Your task to perform on an android device: Open ESPN.com Image 0: 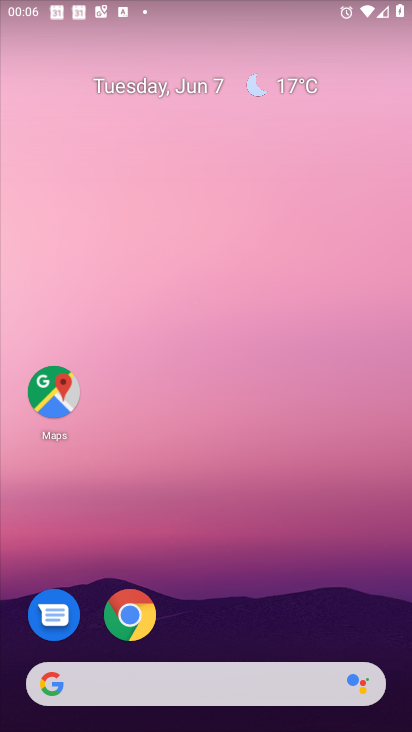
Step 0: click (140, 618)
Your task to perform on an android device: Open ESPN.com Image 1: 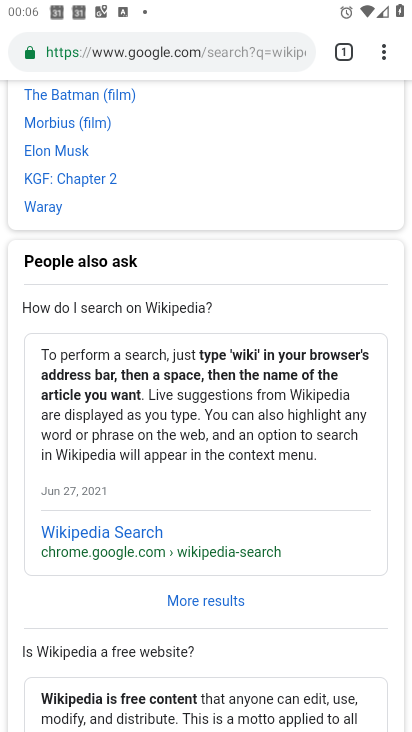
Step 1: click (301, 49)
Your task to perform on an android device: Open ESPN.com Image 2: 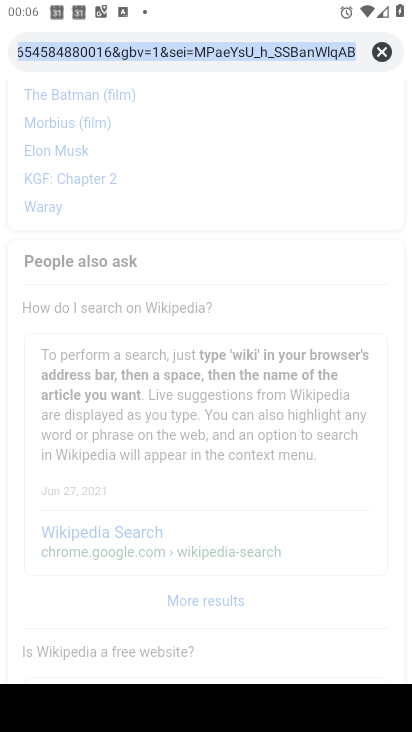
Step 2: click (379, 46)
Your task to perform on an android device: Open ESPN.com Image 3: 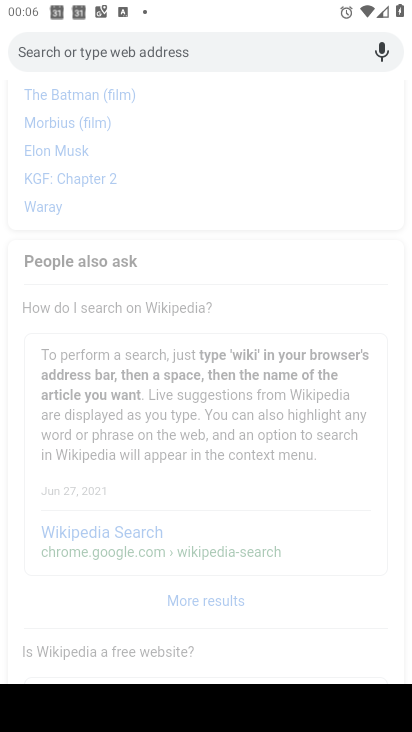
Step 3: type "ESPN.com"
Your task to perform on an android device: Open ESPN.com Image 4: 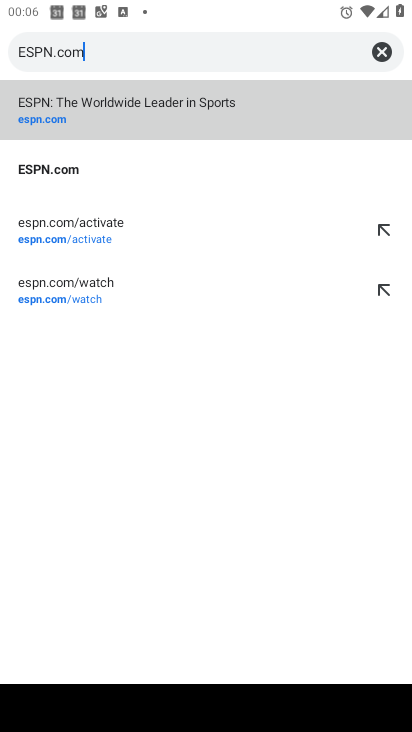
Step 4: click (46, 170)
Your task to perform on an android device: Open ESPN.com Image 5: 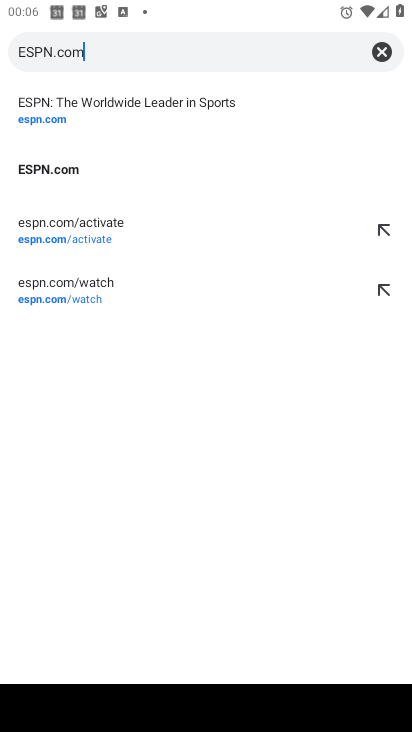
Step 5: click (41, 164)
Your task to perform on an android device: Open ESPN.com Image 6: 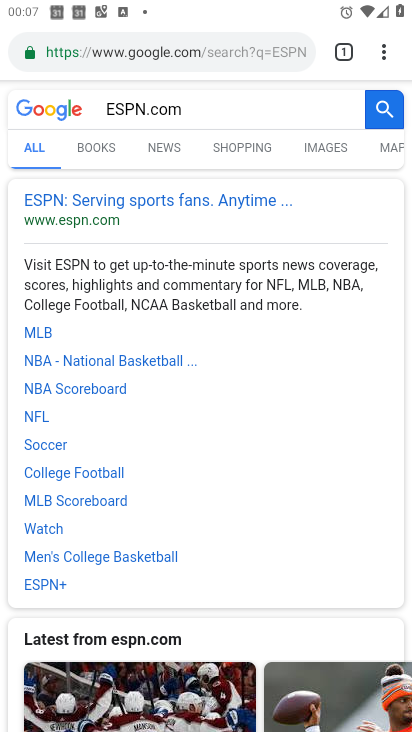
Step 6: task complete